Your task to perform on an android device: What's the weather? Image 0: 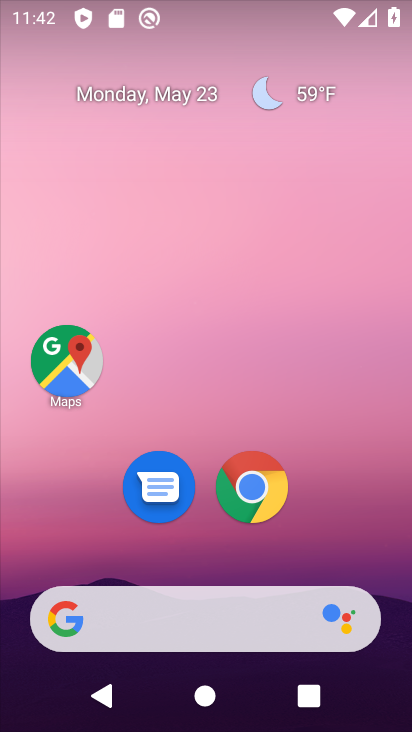
Step 0: click (183, 619)
Your task to perform on an android device: What's the weather? Image 1: 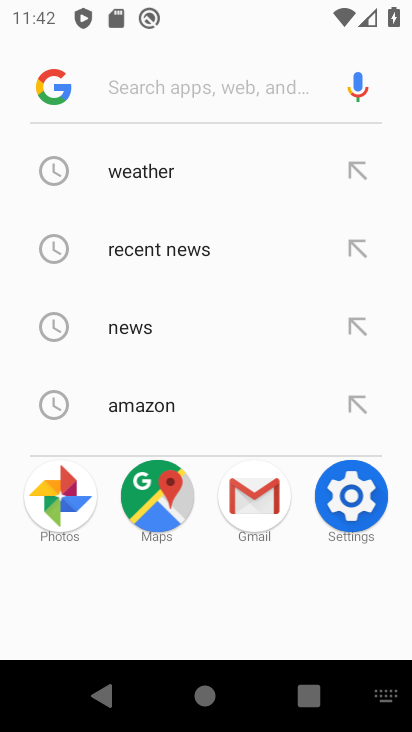
Step 1: type "what's the weather"
Your task to perform on an android device: What's the weather? Image 2: 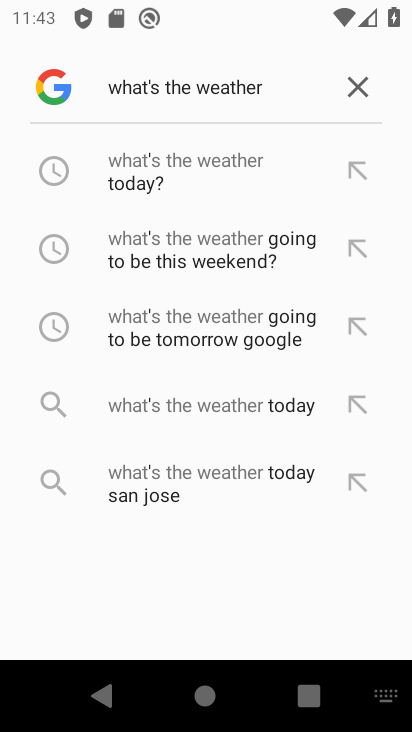
Step 2: click (221, 169)
Your task to perform on an android device: What's the weather? Image 3: 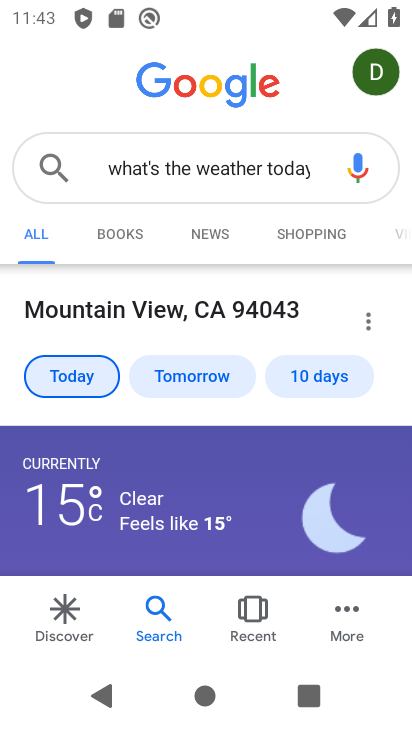
Step 3: task complete